Your task to perform on an android device: turn off wifi Image 0: 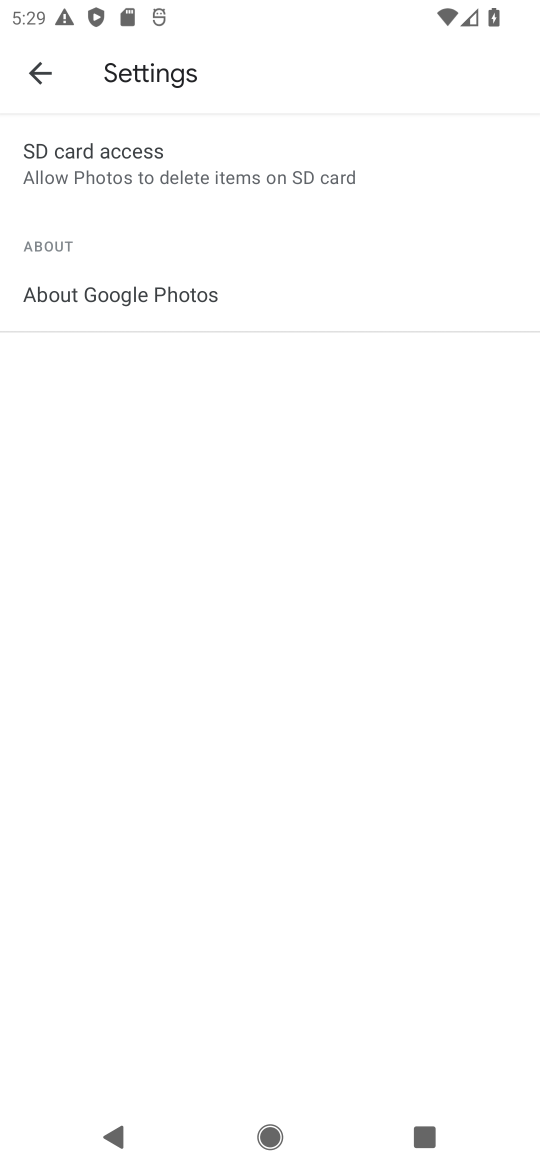
Step 0: press home button
Your task to perform on an android device: turn off wifi Image 1: 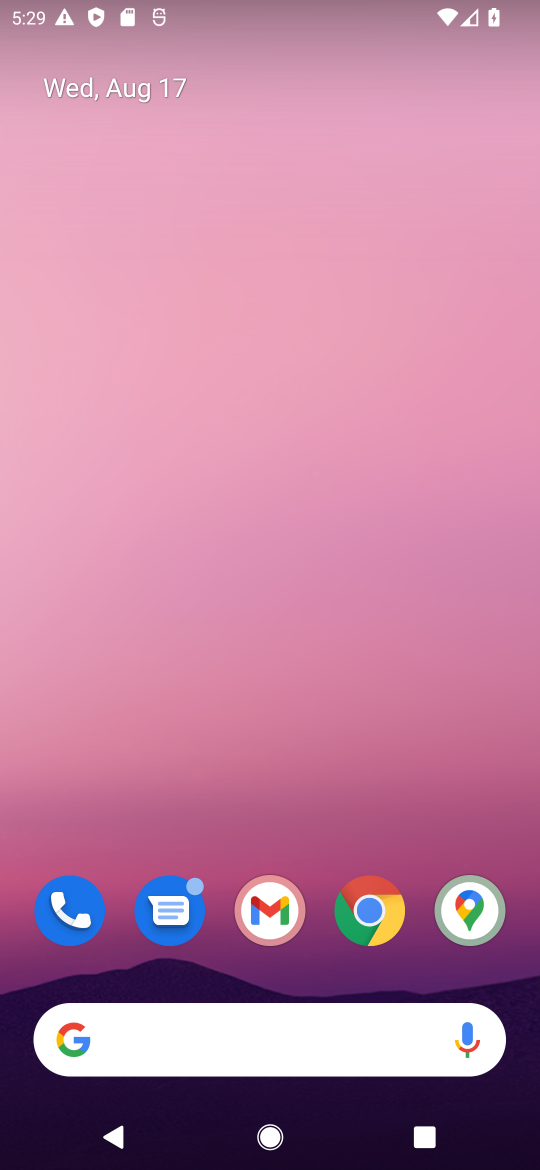
Step 1: drag from (237, 747) to (297, 8)
Your task to perform on an android device: turn off wifi Image 2: 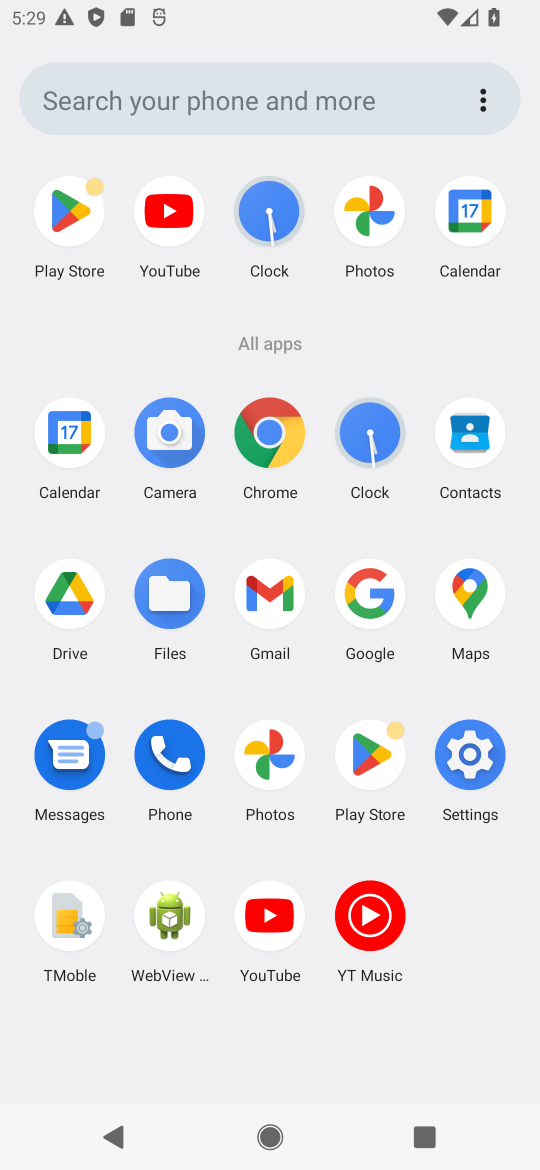
Step 2: click (483, 751)
Your task to perform on an android device: turn off wifi Image 3: 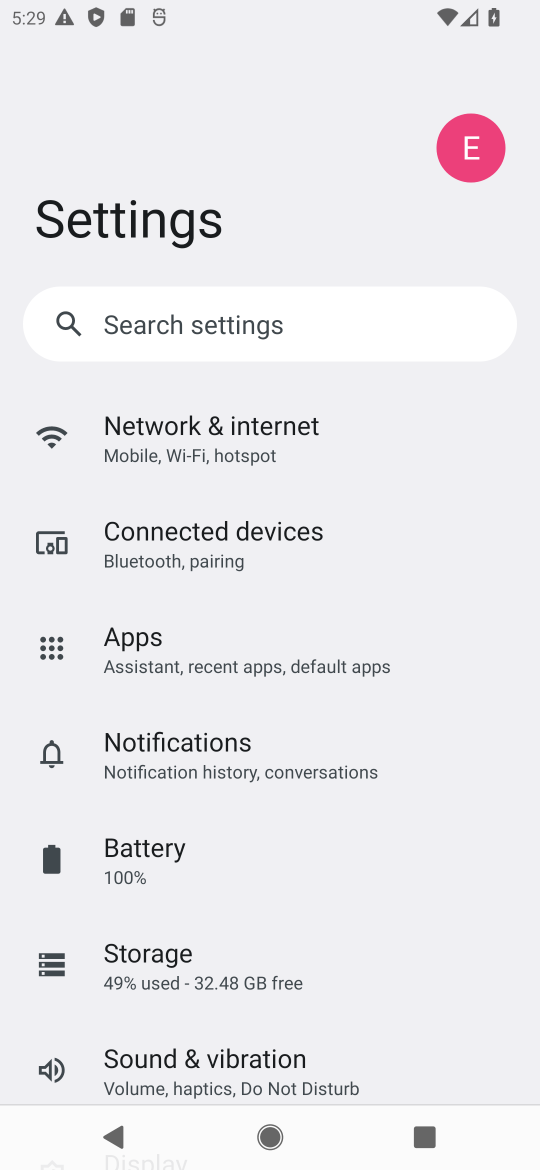
Step 3: click (178, 436)
Your task to perform on an android device: turn off wifi Image 4: 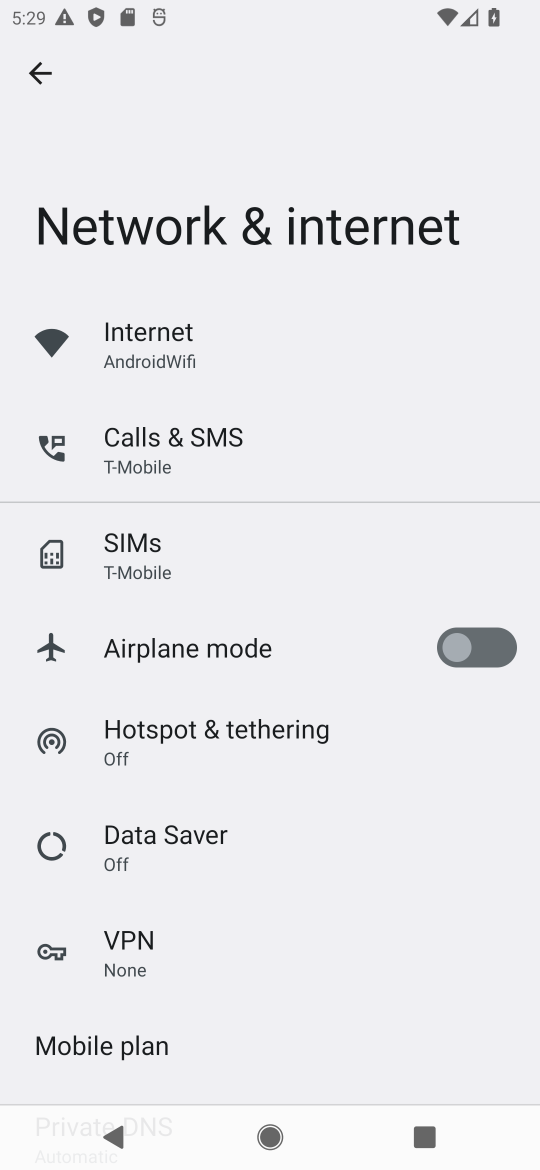
Step 4: click (142, 360)
Your task to perform on an android device: turn off wifi Image 5: 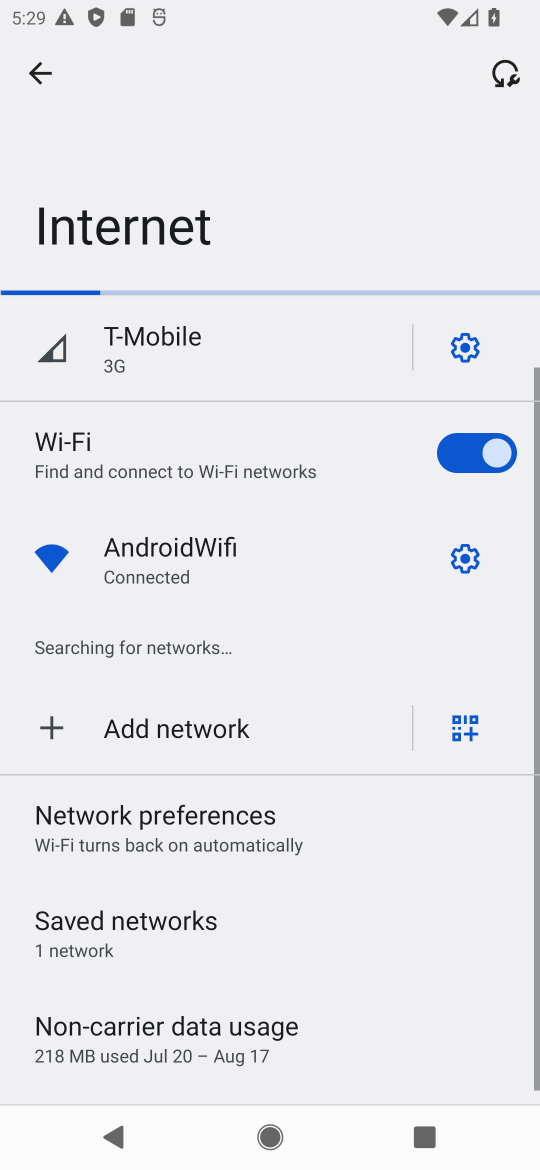
Step 5: click (436, 473)
Your task to perform on an android device: turn off wifi Image 6: 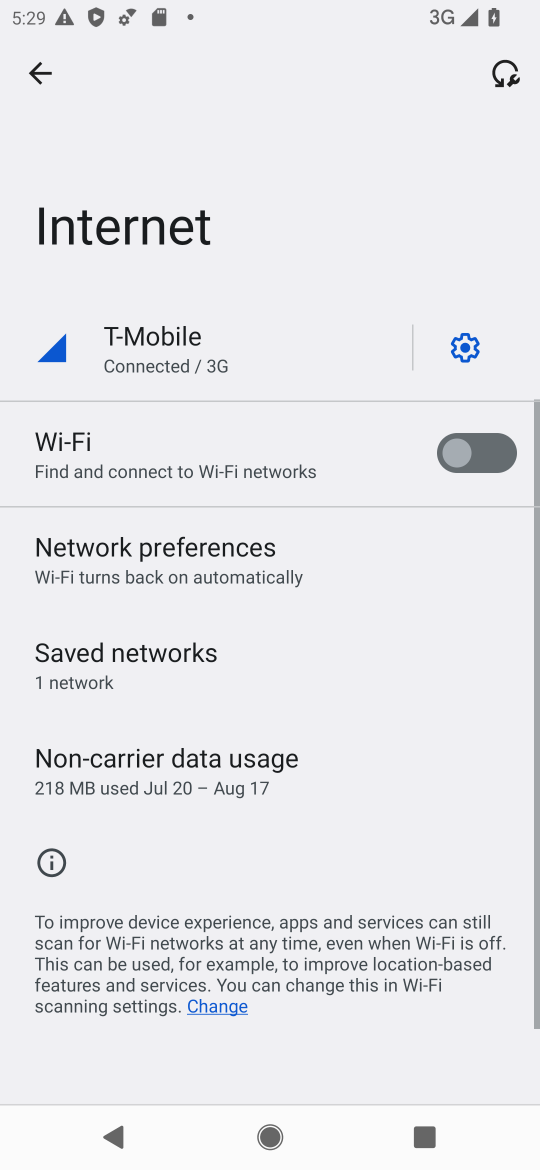
Step 6: task complete